Your task to perform on an android device: Go to Google maps Image 0: 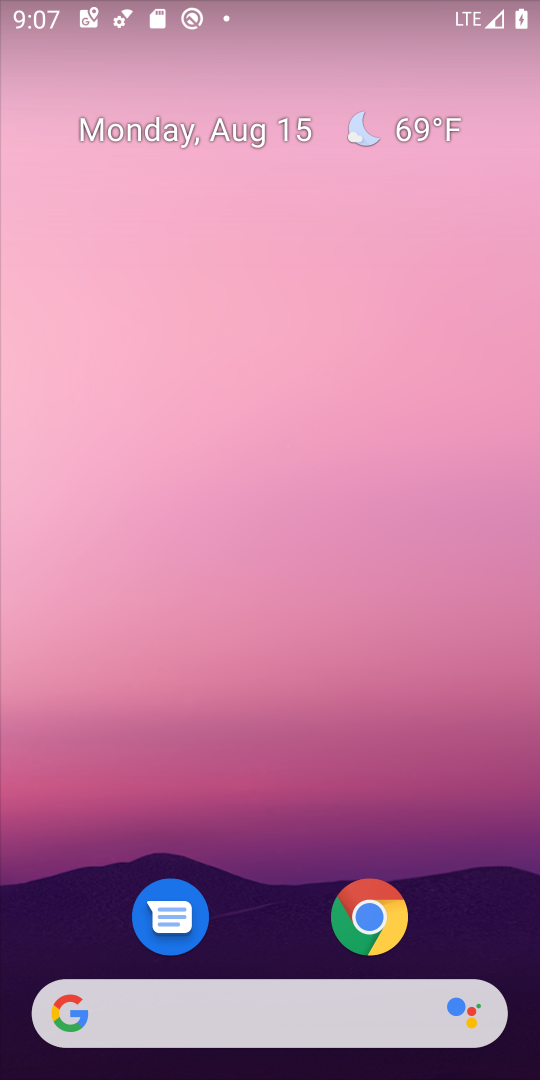
Step 0: drag from (345, 568) to (283, 0)
Your task to perform on an android device: Go to Google maps Image 1: 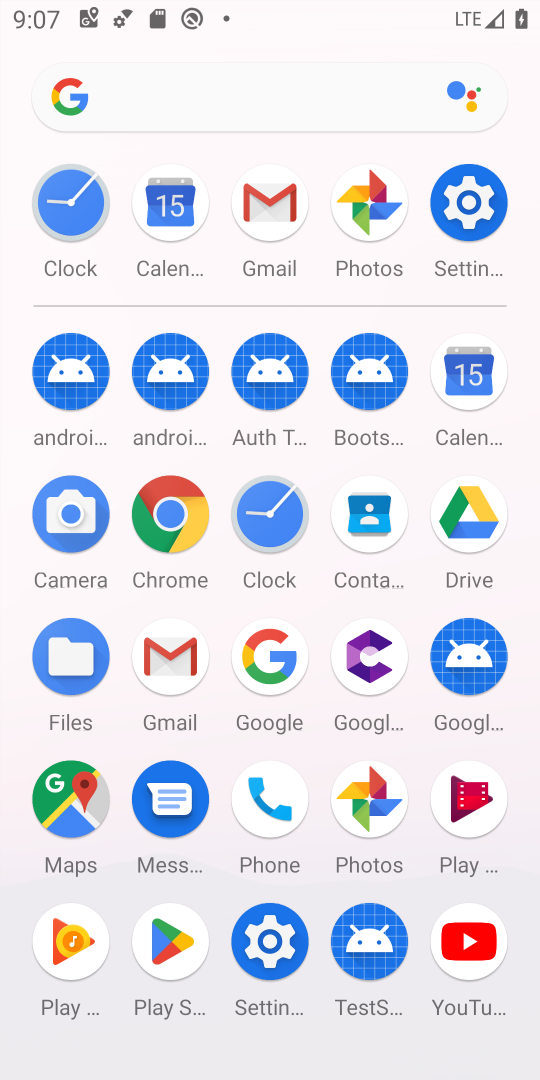
Step 1: click (56, 787)
Your task to perform on an android device: Go to Google maps Image 2: 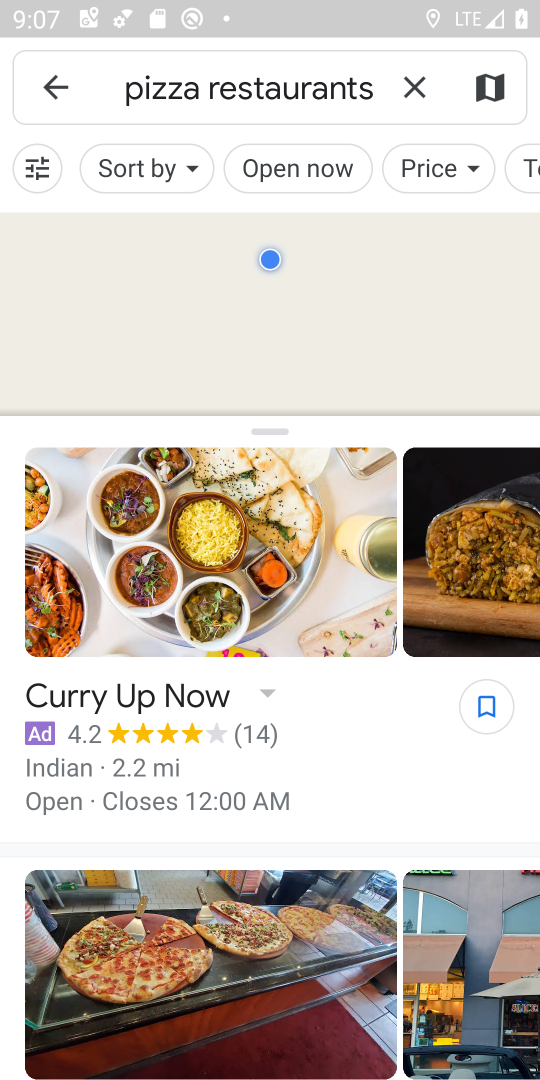
Step 2: click (415, 75)
Your task to perform on an android device: Go to Google maps Image 3: 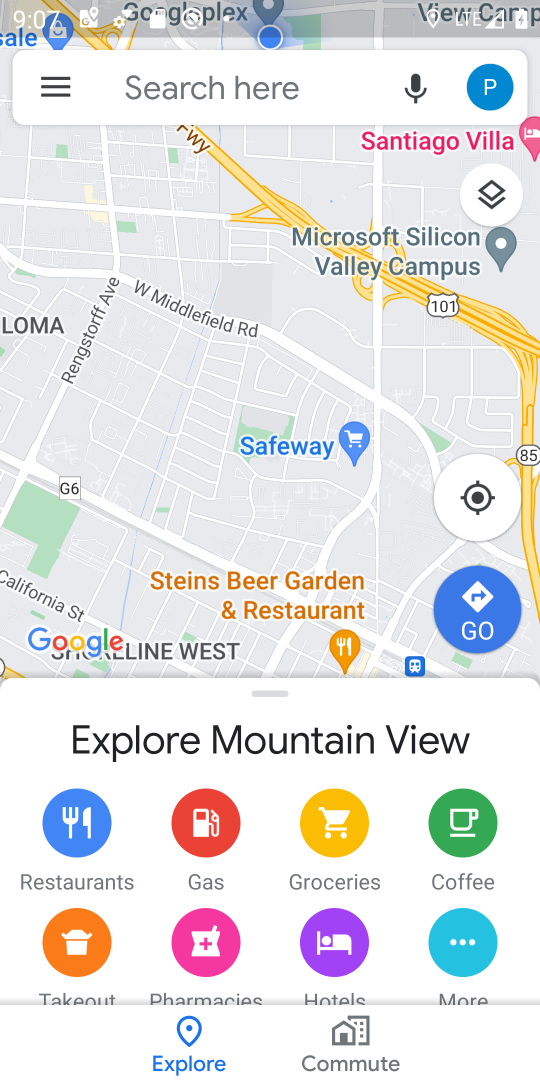
Step 3: task complete